Your task to perform on an android device: see sites visited before in the chrome app Image 0: 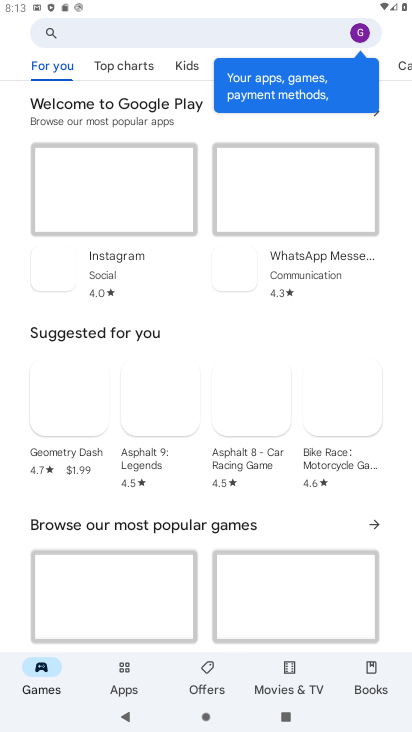
Step 0: press home button
Your task to perform on an android device: see sites visited before in the chrome app Image 1: 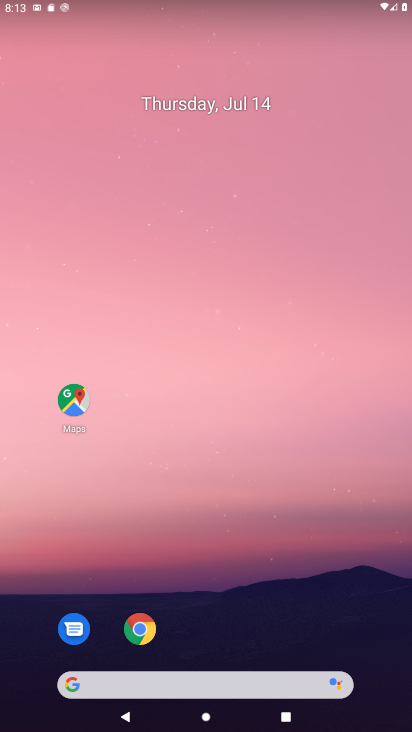
Step 1: click (138, 638)
Your task to perform on an android device: see sites visited before in the chrome app Image 2: 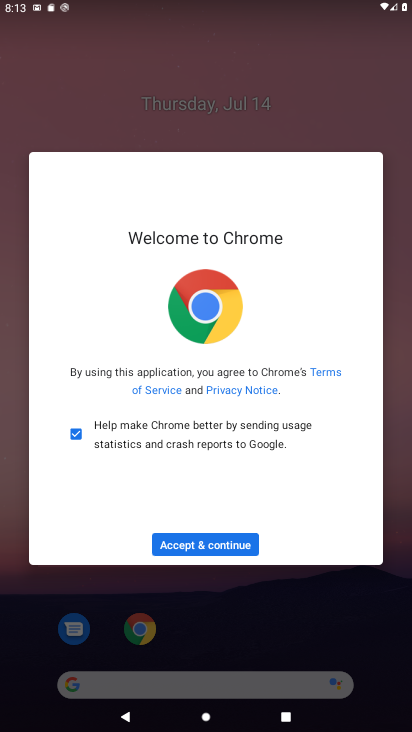
Step 2: click (201, 540)
Your task to perform on an android device: see sites visited before in the chrome app Image 3: 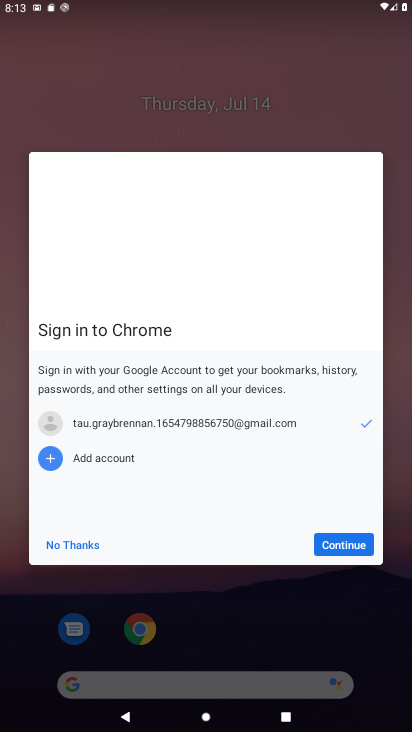
Step 3: click (356, 542)
Your task to perform on an android device: see sites visited before in the chrome app Image 4: 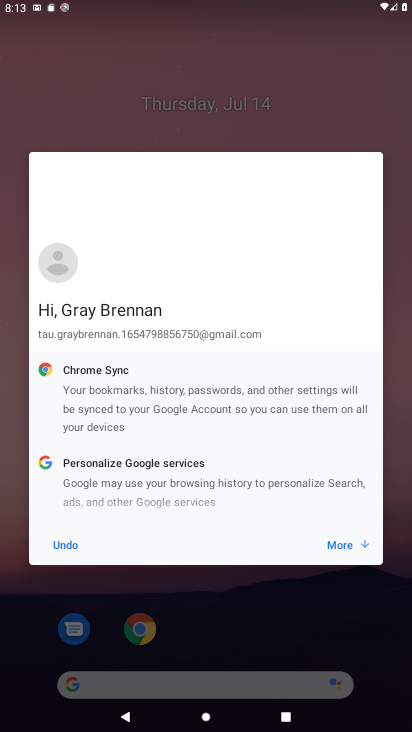
Step 4: click (328, 547)
Your task to perform on an android device: see sites visited before in the chrome app Image 5: 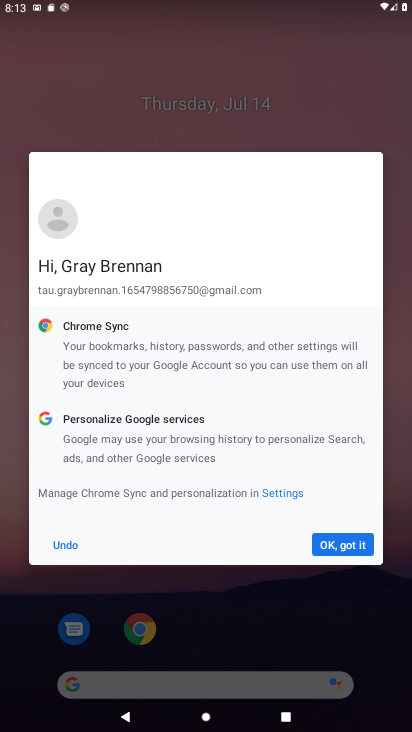
Step 5: click (328, 547)
Your task to perform on an android device: see sites visited before in the chrome app Image 6: 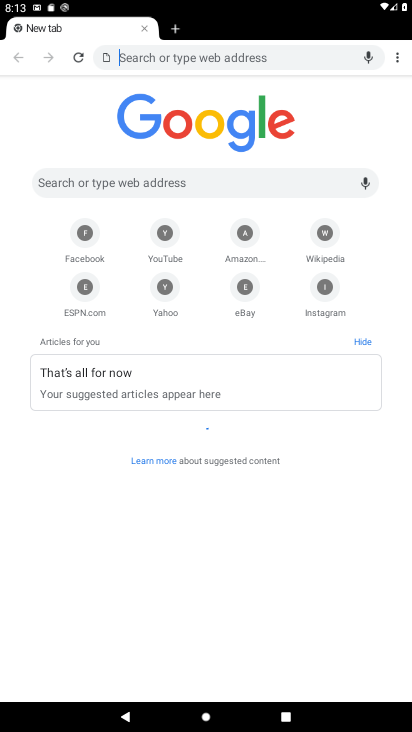
Step 6: click (401, 57)
Your task to perform on an android device: see sites visited before in the chrome app Image 7: 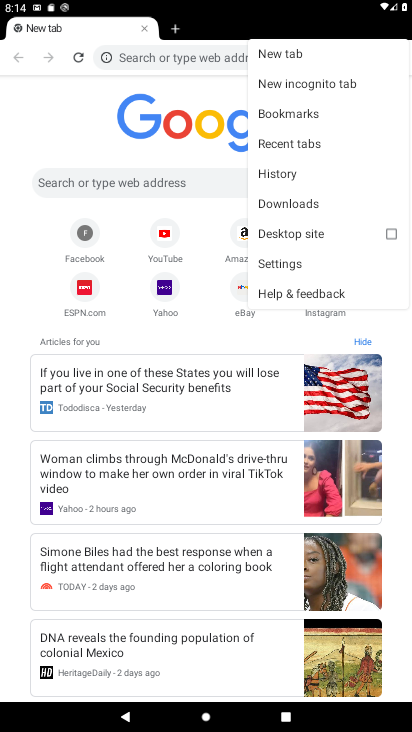
Step 7: click (284, 170)
Your task to perform on an android device: see sites visited before in the chrome app Image 8: 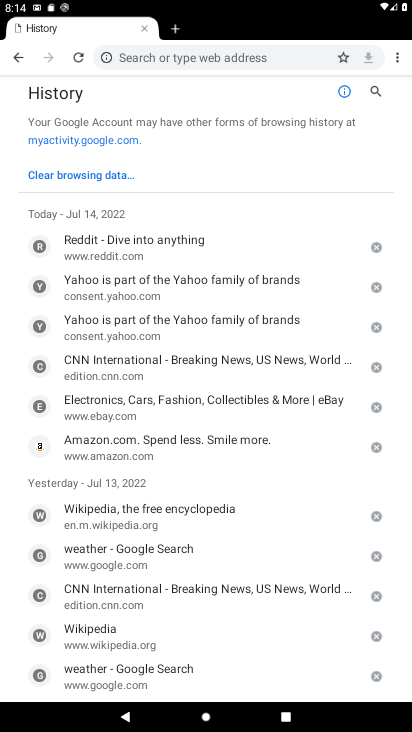
Step 8: task complete